Your task to perform on an android device: manage bookmarks in the chrome app Image 0: 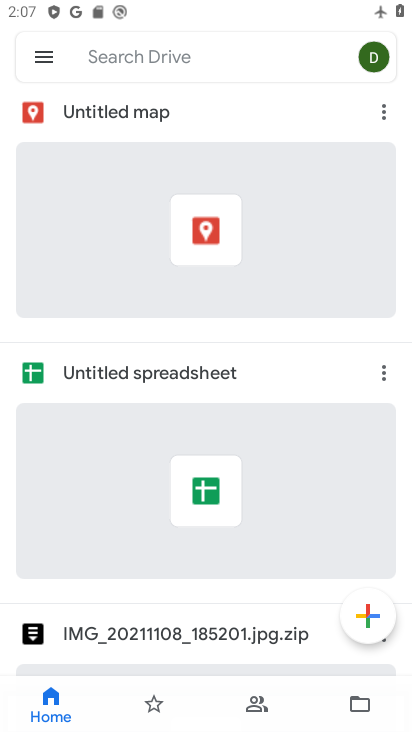
Step 0: press home button
Your task to perform on an android device: manage bookmarks in the chrome app Image 1: 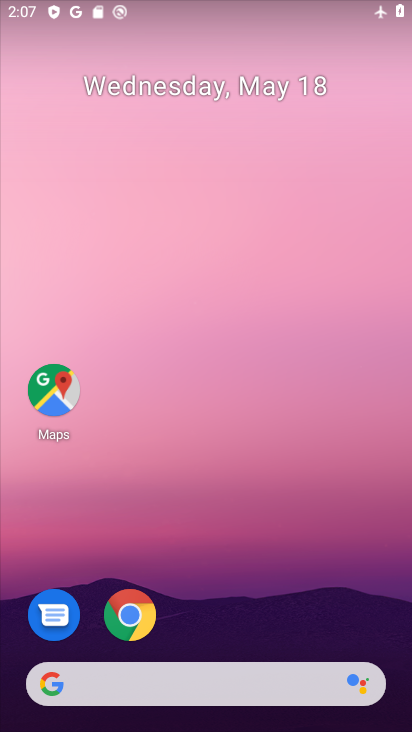
Step 1: drag from (206, 566) to (219, 373)
Your task to perform on an android device: manage bookmarks in the chrome app Image 2: 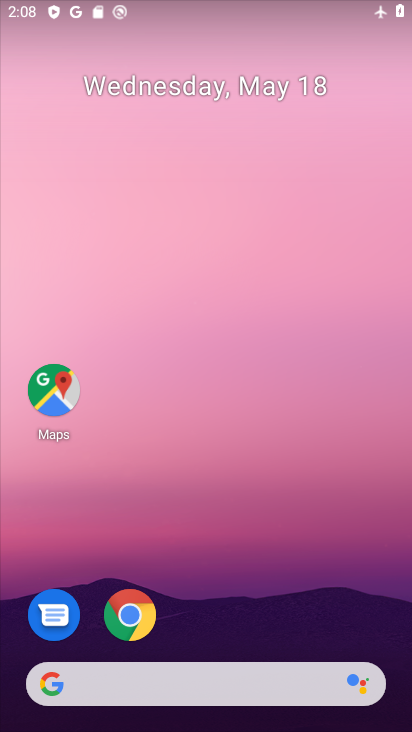
Step 2: click (133, 616)
Your task to perform on an android device: manage bookmarks in the chrome app Image 3: 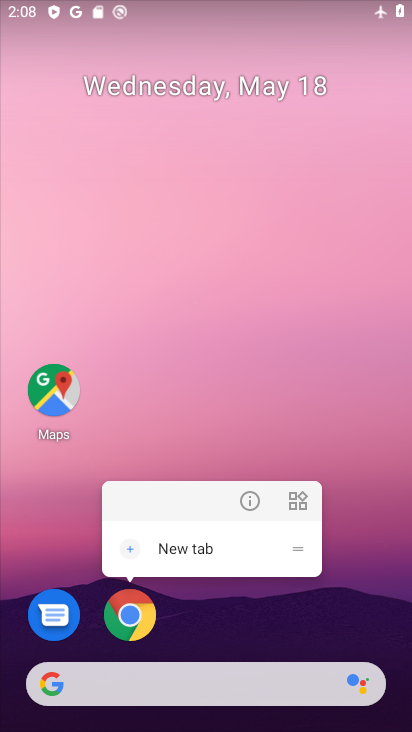
Step 3: click (254, 505)
Your task to perform on an android device: manage bookmarks in the chrome app Image 4: 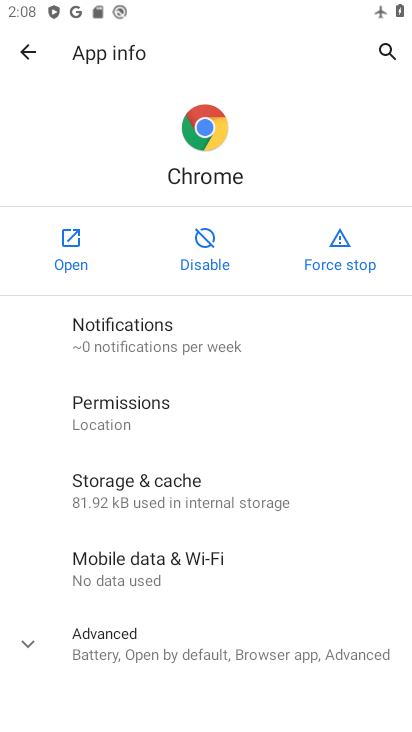
Step 4: click (54, 248)
Your task to perform on an android device: manage bookmarks in the chrome app Image 5: 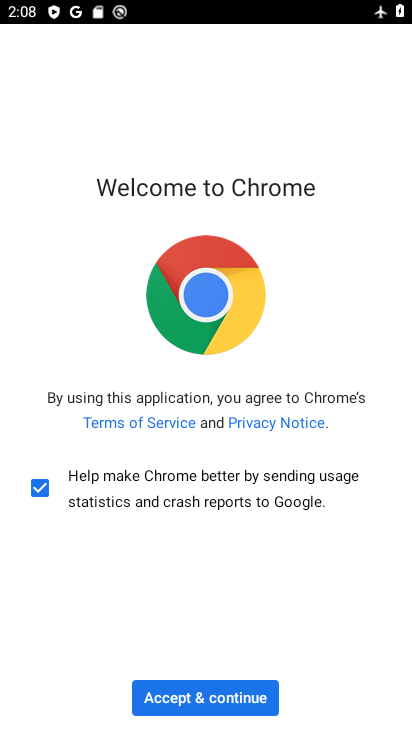
Step 5: click (182, 701)
Your task to perform on an android device: manage bookmarks in the chrome app Image 6: 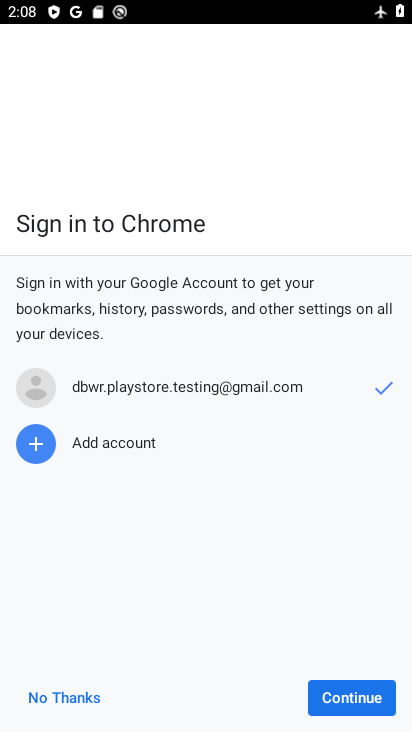
Step 6: click (376, 702)
Your task to perform on an android device: manage bookmarks in the chrome app Image 7: 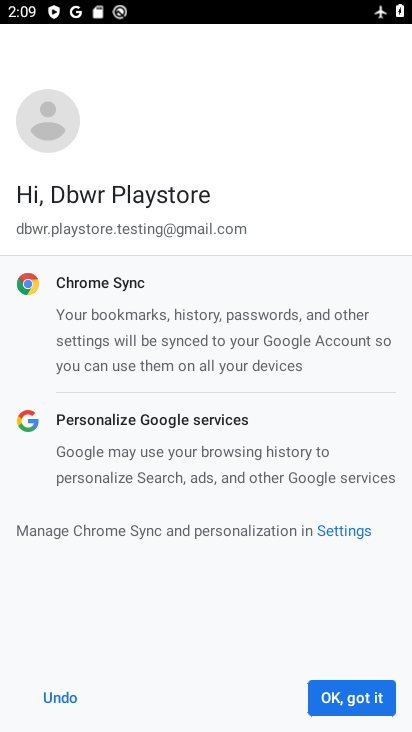
Step 7: click (348, 704)
Your task to perform on an android device: manage bookmarks in the chrome app Image 8: 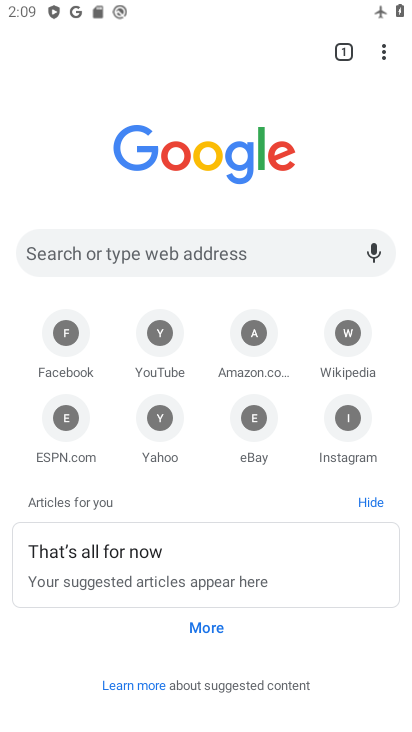
Step 8: click (384, 47)
Your task to perform on an android device: manage bookmarks in the chrome app Image 9: 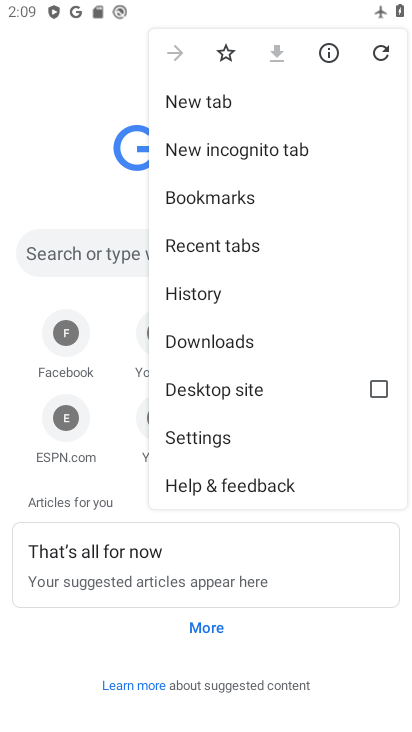
Step 9: click (238, 201)
Your task to perform on an android device: manage bookmarks in the chrome app Image 10: 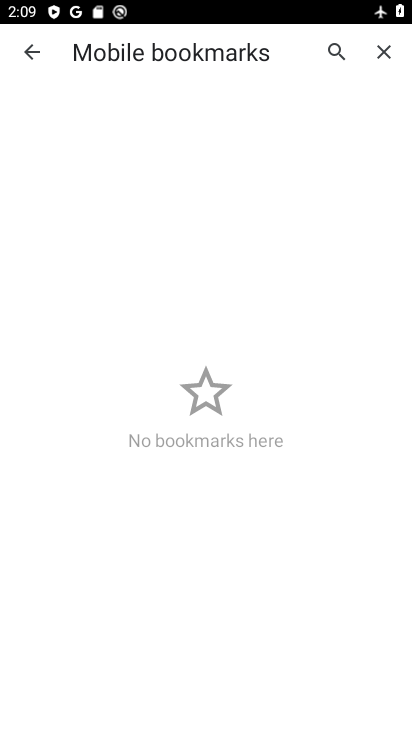
Step 10: task complete